Your task to perform on an android device: Play the last video I watched on Youtube Image 0: 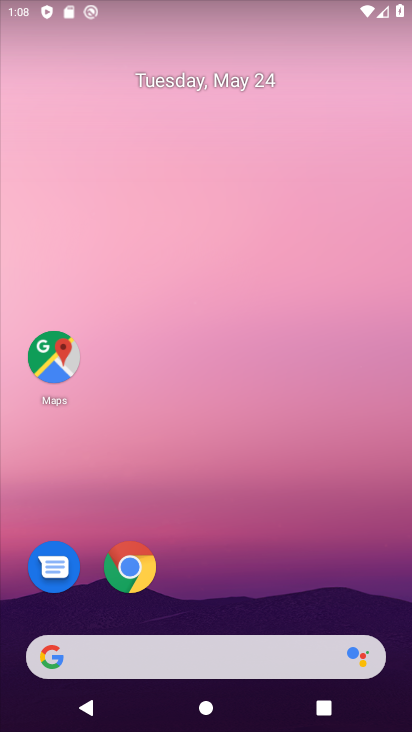
Step 0: drag from (225, 635) to (337, 113)
Your task to perform on an android device: Play the last video I watched on Youtube Image 1: 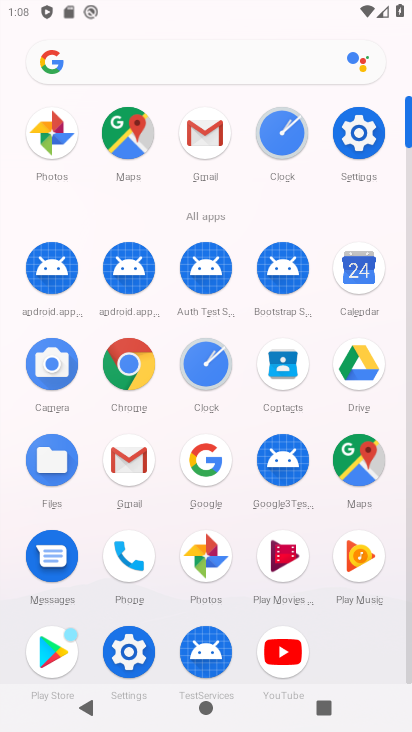
Step 1: click (288, 556)
Your task to perform on an android device: Play the last video I watched on Youtube Image 2: 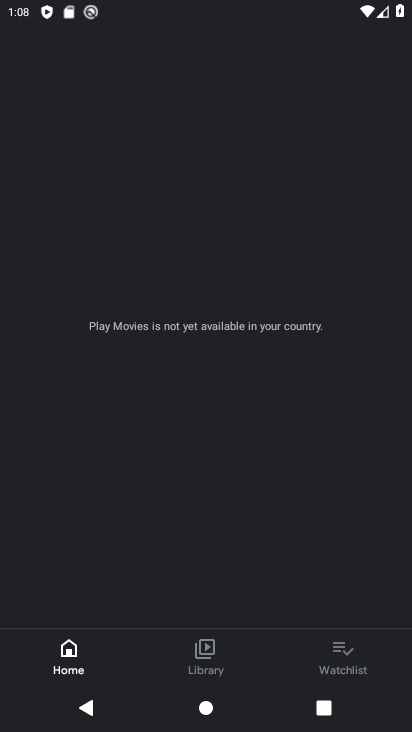
Step 2: click (348, 666)
Your task to perform on an android device: Play the last video I watched on Youtube Image 3: 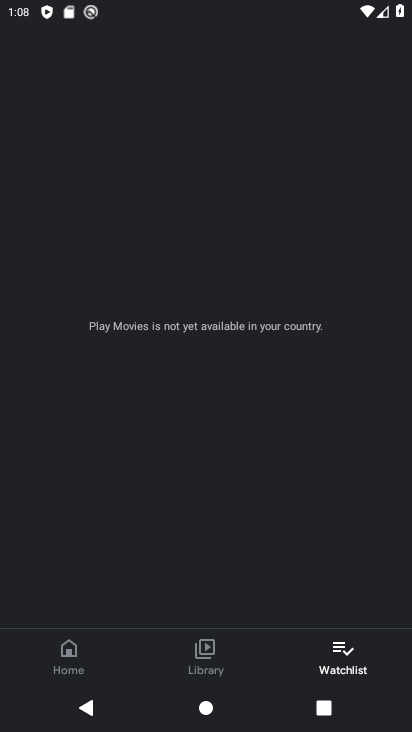
Step 3: click (348, 666)
Your task to perform on an android device: Play the last video I watched on Youtube Image 4: 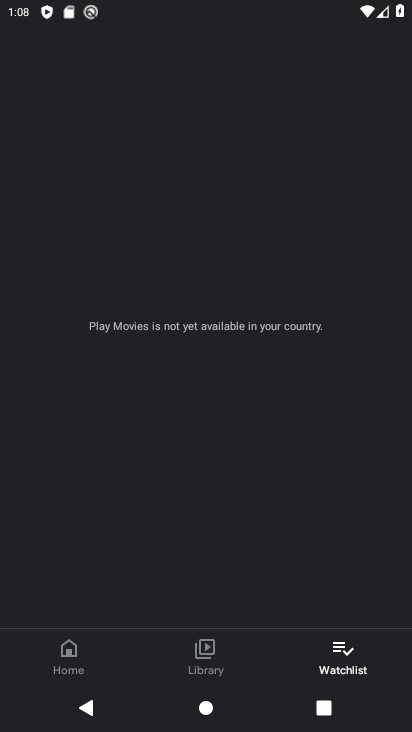
Step 4: task complete